Your task to perform on an android device: see tabs open on other devices in the chrome app Image 0: 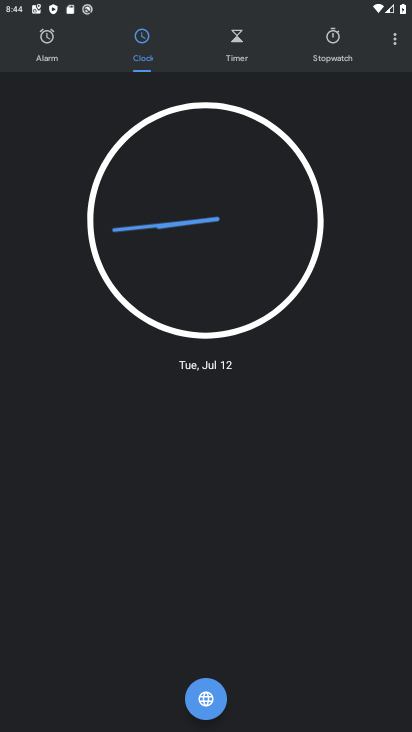
Step 0: press home button
Your task to perform on an android device: see tabs open on other devices in the chrome app Image 1: 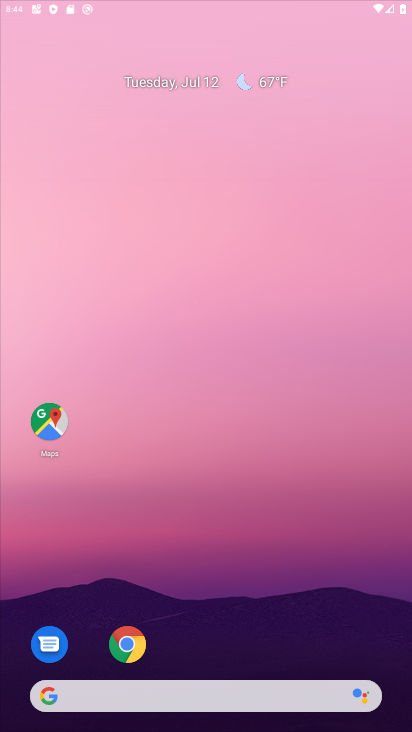
Step 1: drag from (105, 700) to (167, 57)
Your task to perform on an android device: see tabs open on other devices in the chrome app Image 2: 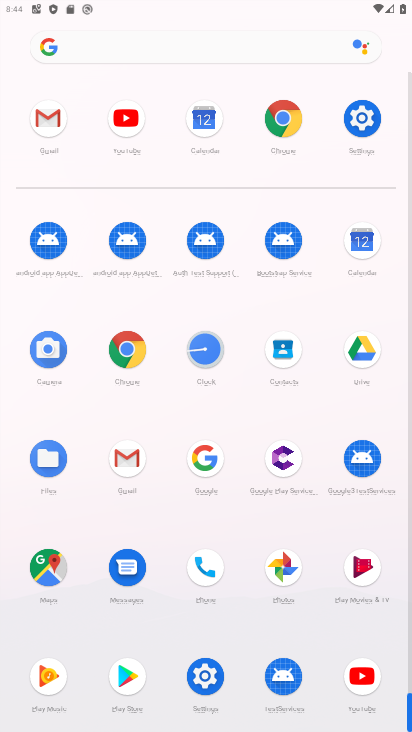
Step 2: click (120, 344)
Your task to perform on an android device: see tabs open on other devices in the chrome app Image 3: 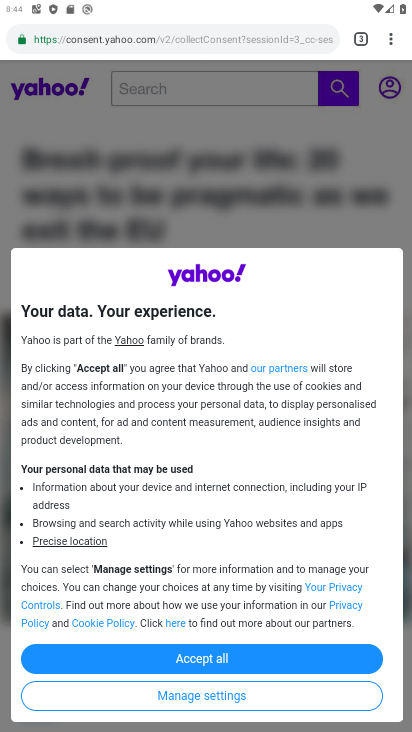
Step 3: drag from (197, 556) to (214, 455)
Your task to perform on an android device: see tabs open on other devices in the chrome app Image 4: 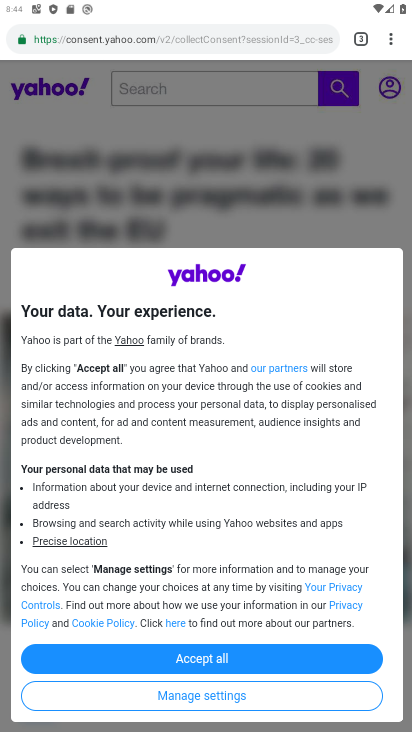
Step 4: click (384, 42)
Your task to perform on an android device: see tabs open on other devices in the chrome app Image 5: 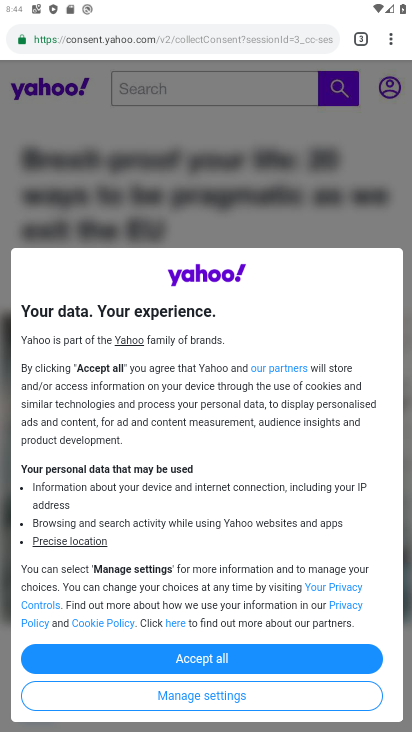
Step 5: click (400, 39)
Your task to perform on an android device: see tabs open on other devices in the chrome app Image 6: 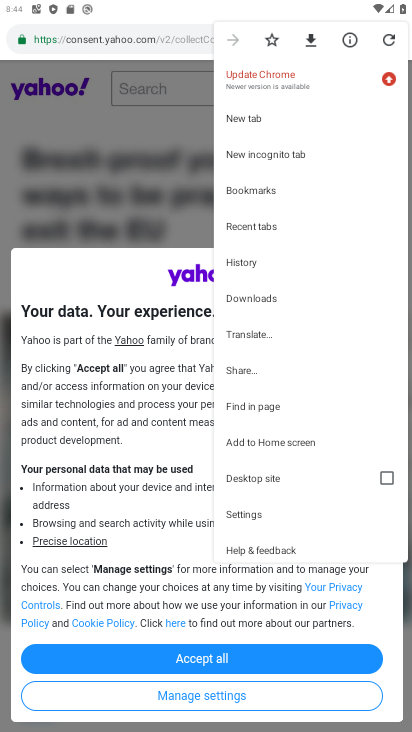
Step 6: drag from (304, 500) to (324, 63)
Your task to perform on an android device: see tabs open on other devices in the chrome app Image 7: 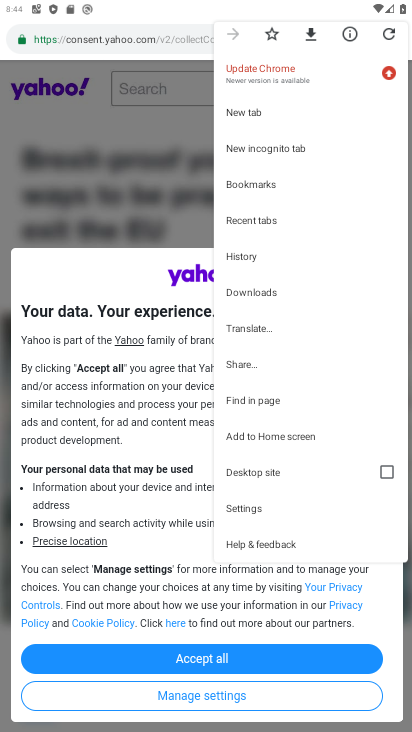
Step 7: click (280, 212)
Your task to perform on an android device: see tabs open on other devices in the chrome app Image 8: 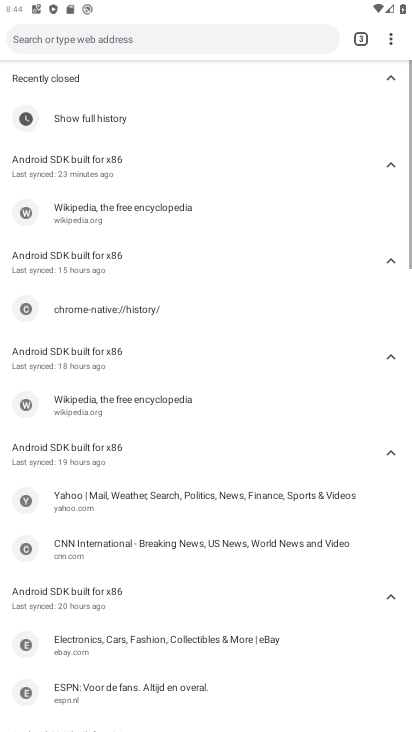
Step 8: task complete